Your task to perform on an android device: check out phone information Image 0: 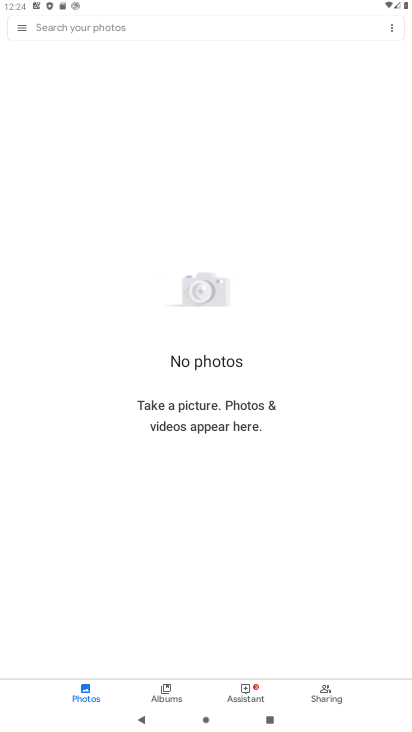
Step 0: task impossible